Your task to perform on an android device: turn off translation in the chrome app Image 0: 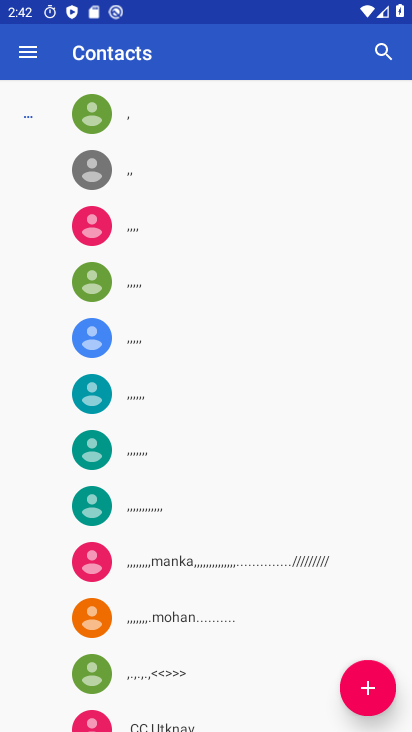
Step 0: press home button
Your task to perform on an android device: turn off translation in the chrome app Image 1: 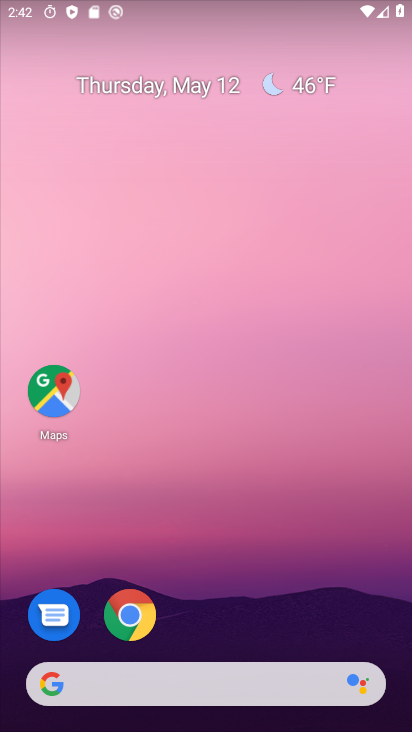
Step 1: click (131, 615)
Your task to perform on an android device: turn off translation in the chrome app Image 2: 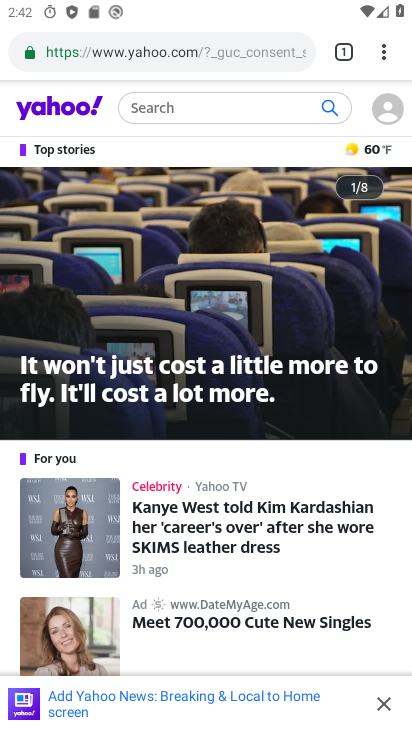
Step 2: click (378, 56)
Your task to perform on an android device: turn off translation in the chrome app Image 3: 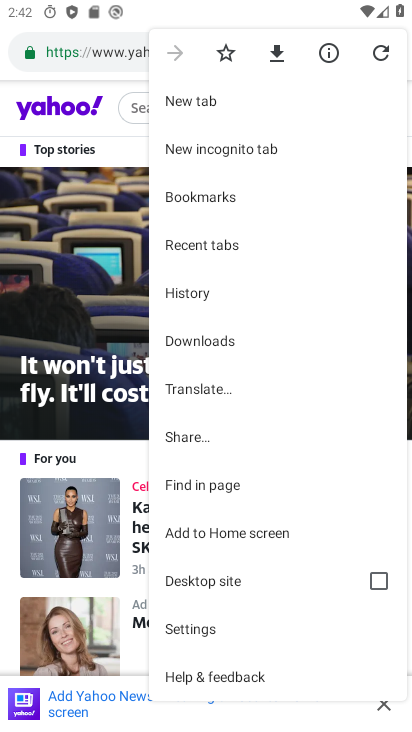
Step 3: click (218, 629)
Your task to perform on an android device: turn off translation in the chrome app Image 4: 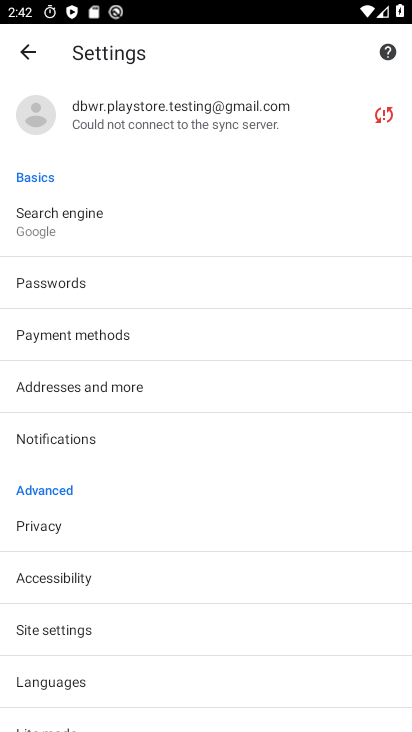
Step 4: drag from (151, 658) to (143, 505)
Your task to perform on an android device: turn off translation in the chrome app Image 5: 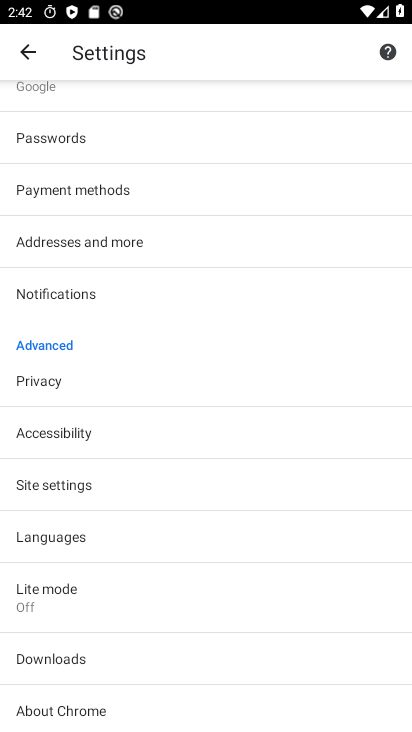
Step 5: click (109, 485)
Your task to perform on an android device: turn off translation in the chrome app Image 6: 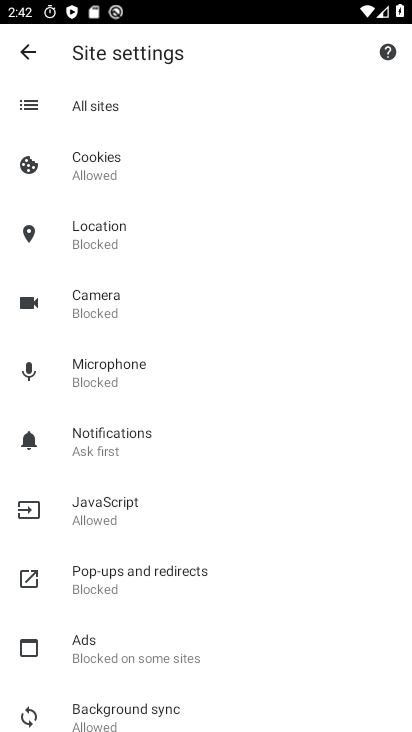
Step 6: press back button
Your task to perform on an android device: turn off translation in the chrome app Image 7: 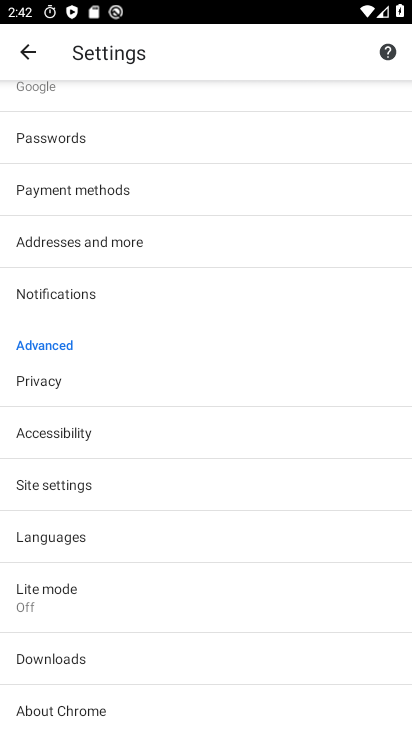
Step 7: click (66, 542)
Your task to perform on an android device: turn off translation in the chrome app Image 8: 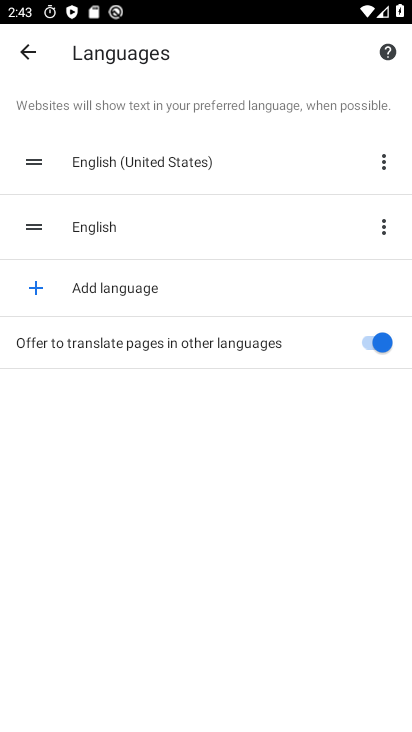
Step 8: click (372, 335)
Your task to perform on an android device: turn off translation in the chrome app Image 9: 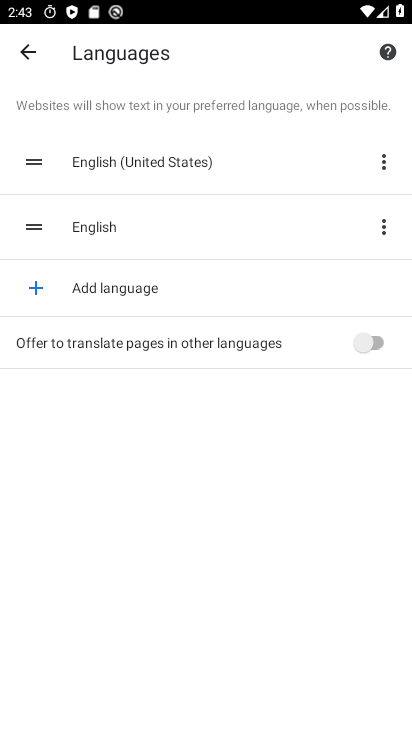
Step 9: task complete